Your task to perform on an android device: turn on wifi Image 0: 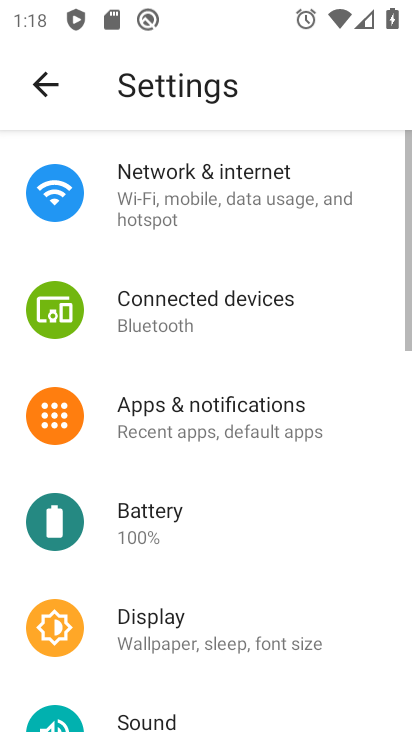
Step 0: press home button
Your task to perform on an android device: turn on wifi Image 1: 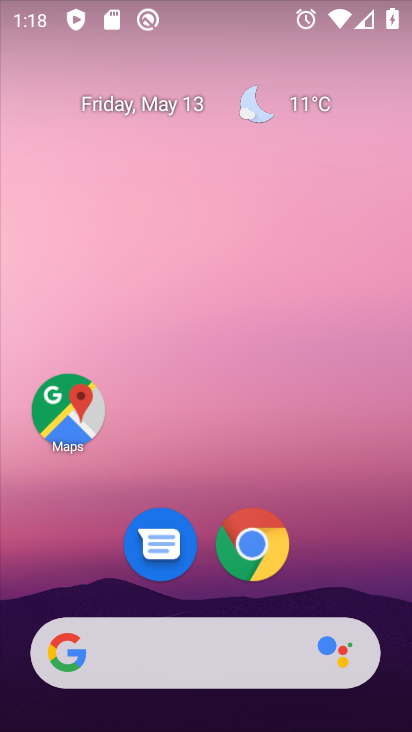
Step 1: drag from (182, 576) to (291, 133)
Your task to perform on an android device: turn on wifi Image 2: 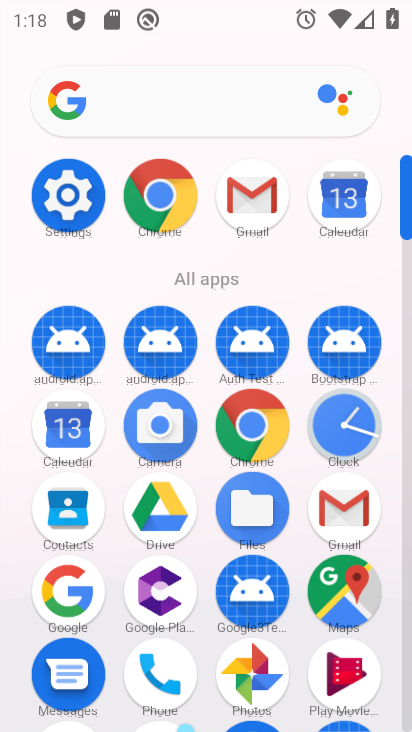
Step 2: click (81, 197)
Your task to perform on an android device: turn on wifi Image 3: 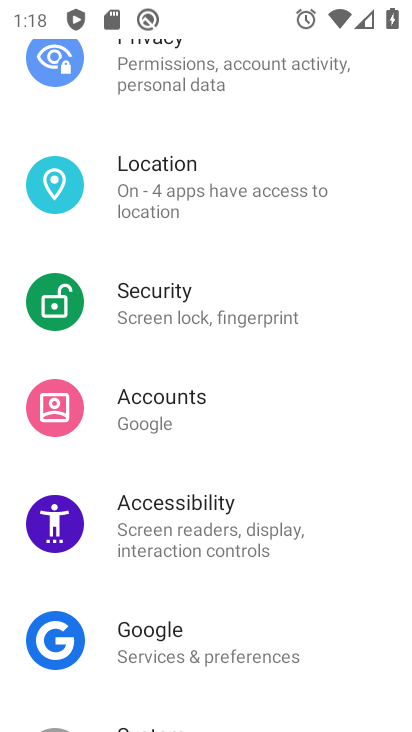
Step 3: drag from (207, 196) to (214, 549)
Your task to perform on an android device: turn on wifi Image 4: 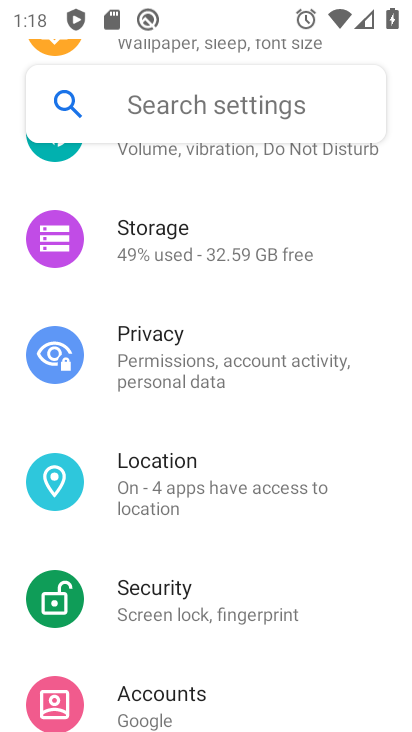
Step 4: drag from (228, 232) to (220, 581)
Your task to perform on an android device: turn on wifi Image 5: 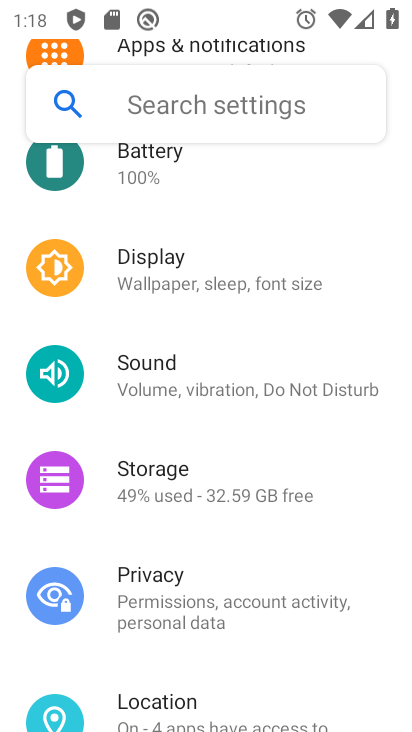
Step 5: drag from (224, 220) to (252, 566)
Your task to perform on an android device: turn on wifi Image 6: 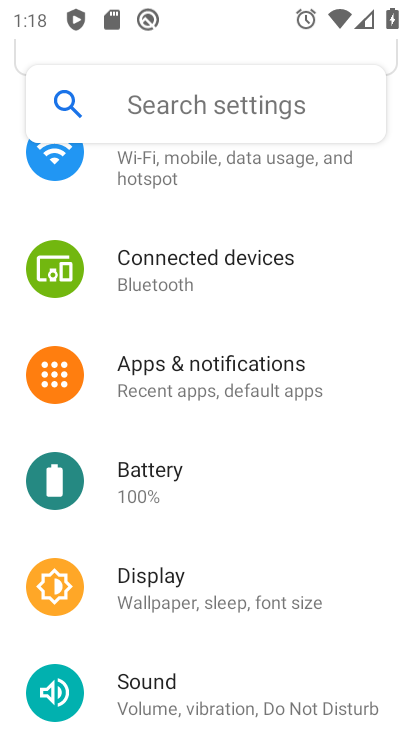
Step 6: click (146, 167)
Your task to perform on an android device: turn on wifi Image 7: 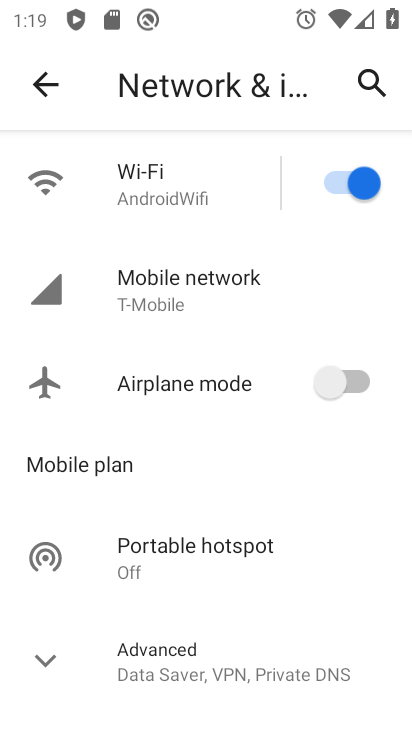
Step 7: task complete